Your task to perform on an android device: delete the emails in spam in the gmail app Image 0: 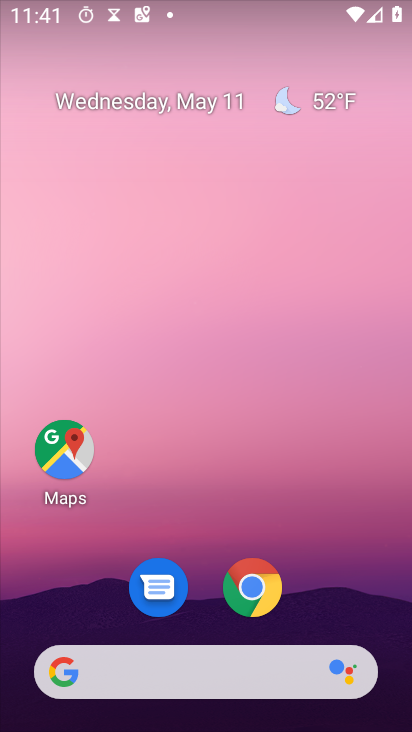
Step 0: drag from (245, 640) to (321, 225)
Your task to perform on an android device: delete the emails in spam in the gmail app Image 1: 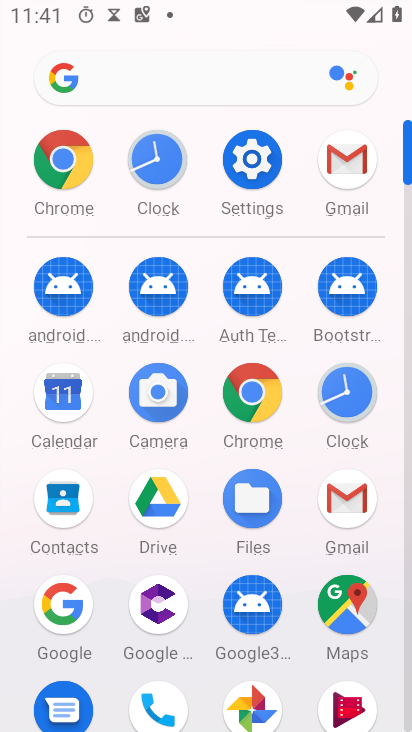
Step 1: click (361, 158)
Your task to perform on an android device: delete the emails in spam in the gmail app Image 2: 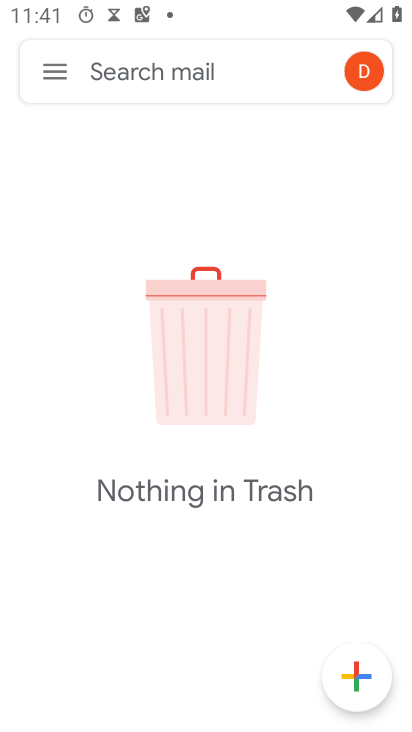
Step 2: click (55, 74)
Your task to perform on an android device: delete the emails in spam in the gmail app Image 3: 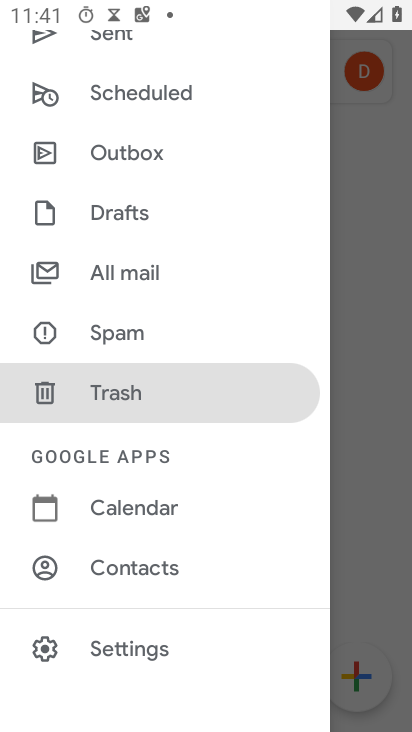
Step 3: click (123, 345)
Your task to perform on an android device: delete the emails in spam in the gmail app Image 4: 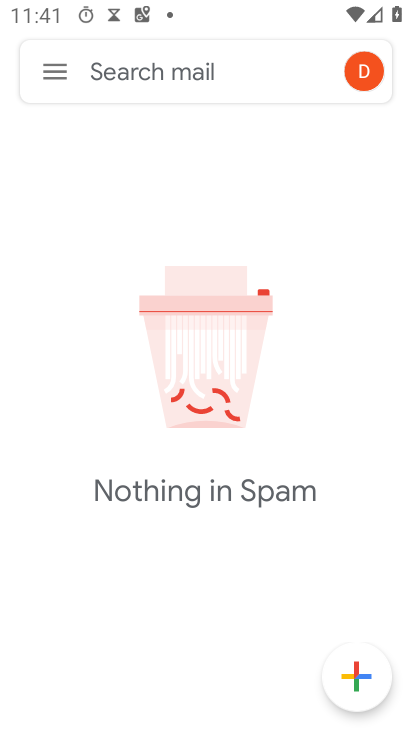
Step 4: task complete